Your task to perform on an android device: Open Chrome and go to settings Image 0: 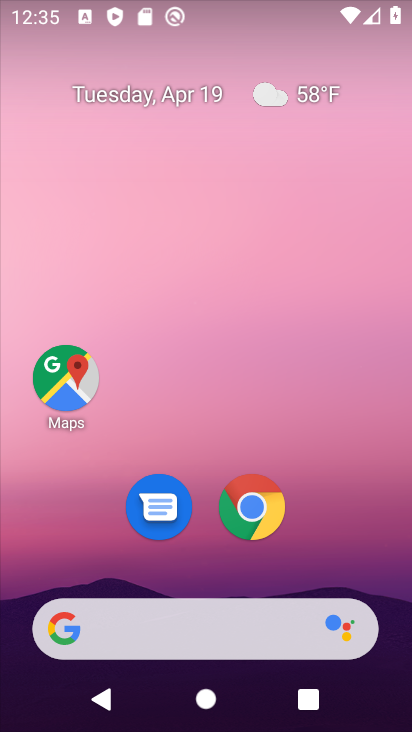
Step 0: click (257, 509)
Your task to perform on an android device: Open Chrome and go to settings Image 1: 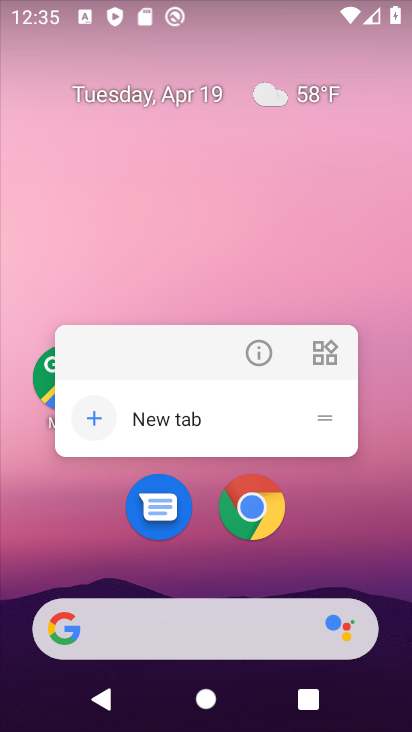
Step 1: click (247, 520)
Your task to perform on an android device: Open Chrome and go to settings Image 2: 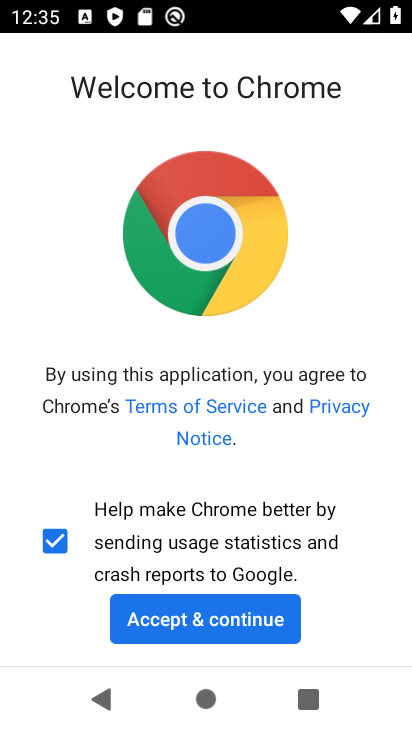
Step 2: click (183, 608)
Your task to perform on an android device: Open Chrome and go to settings Image 3: 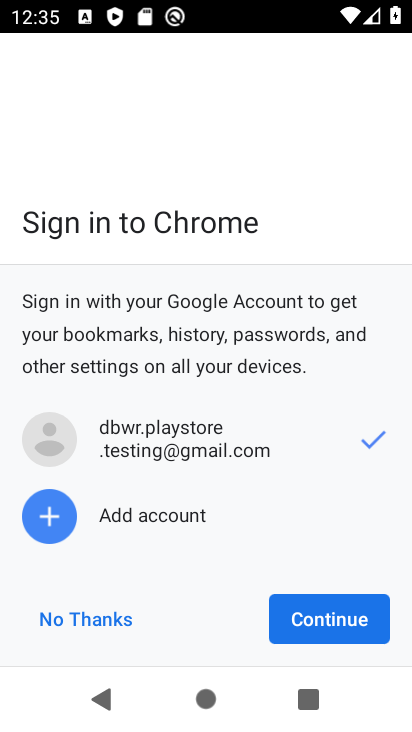
Step 3: click (332, 605)
Your task to perform on an android device: Open Chrome and go to settings Image 4: 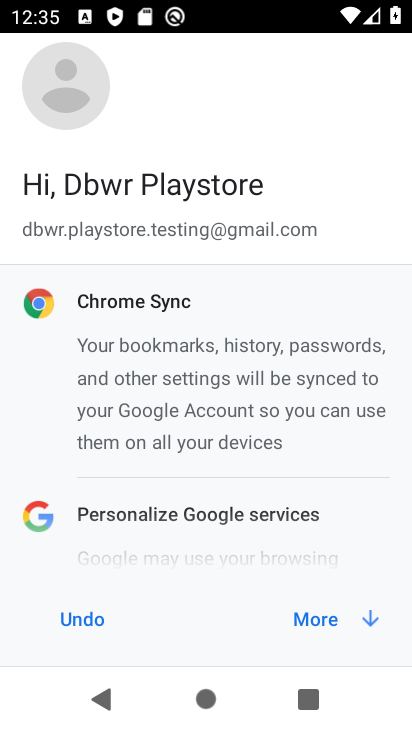
Step 4: click (317, 613)
Your task to perform on an android device: Open Chrome and go to settings Image 5: 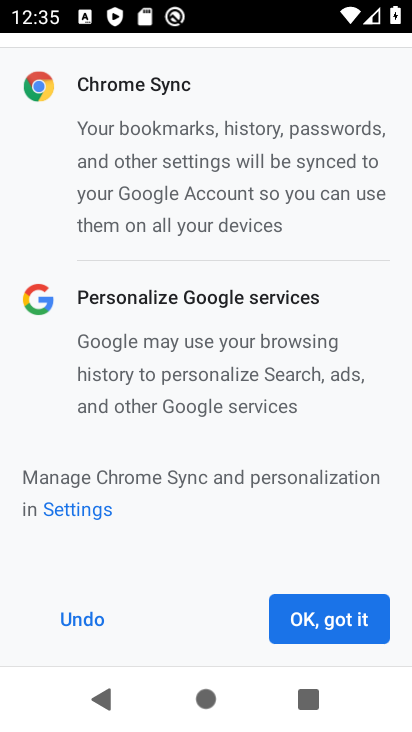
Step 5: click (316, 608)
Your task to perform on an android device: Open Chrome and go to settings Image 6: 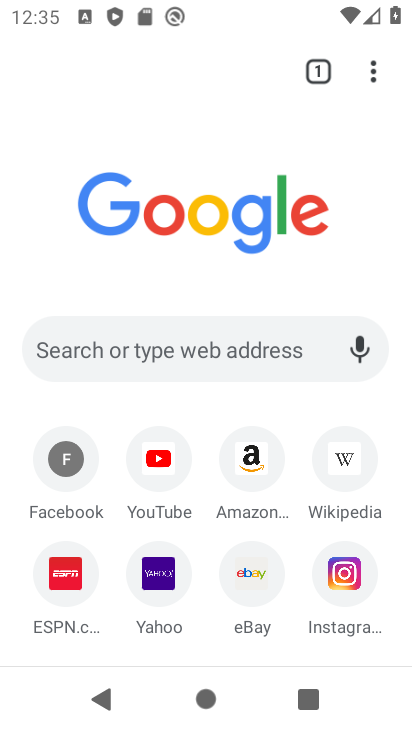
Step 6: click (371, 66)
Your task to perform on an android device: Open Chrome and go to settings Image 7: 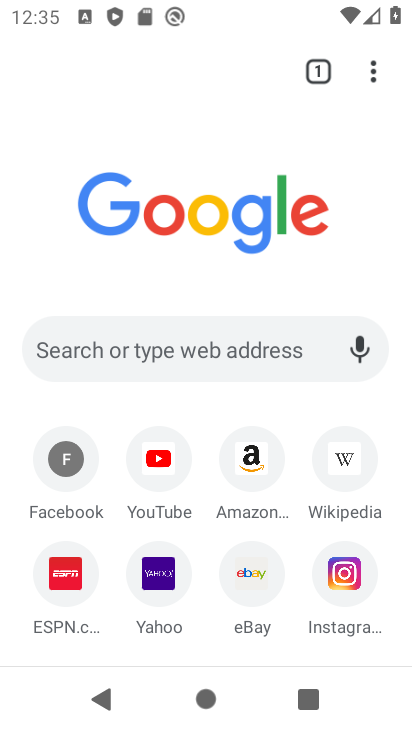
Step 7: click (370, 70)
Your task to perform on an android device: Open Chrome and go to settings Image 8: 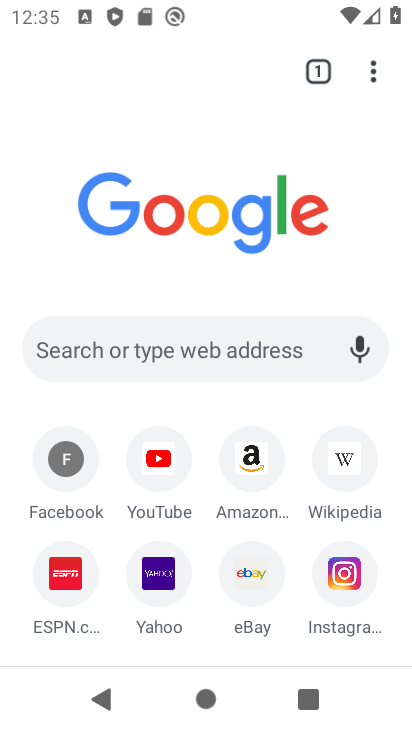
Step 8: click (370, 70)
Your task to perform on an android device: Open Chrome and go to settings Image 9: 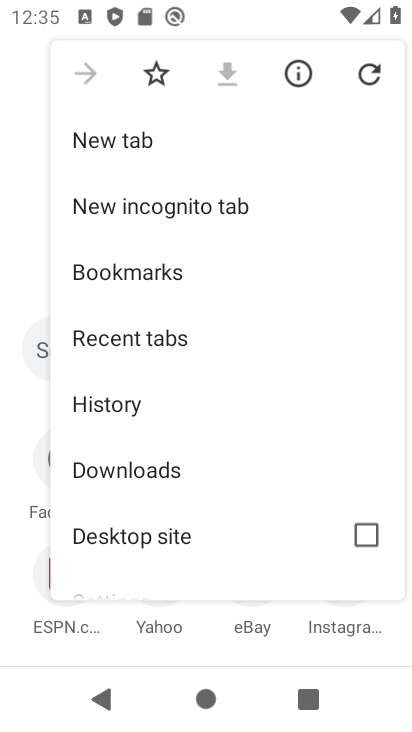
Step 9: drag from (192, 500) to (208, 206)
Your task to perform on an android device: Open Chrome and go to settings Image 10: 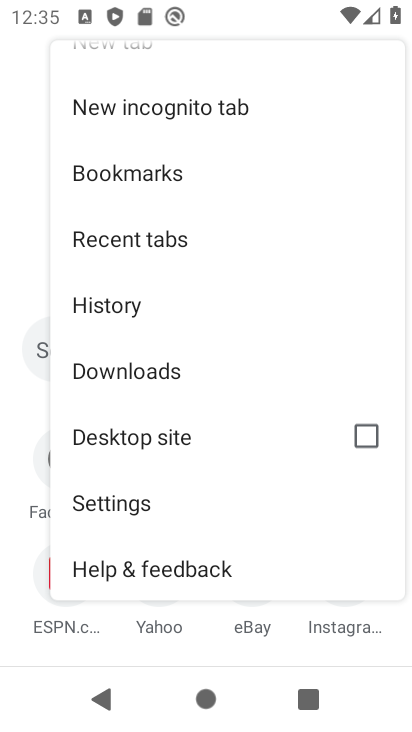
Step 10: click (163, 501)
Your task to perform on an android device: Open Chrome and go to settings Image 11: 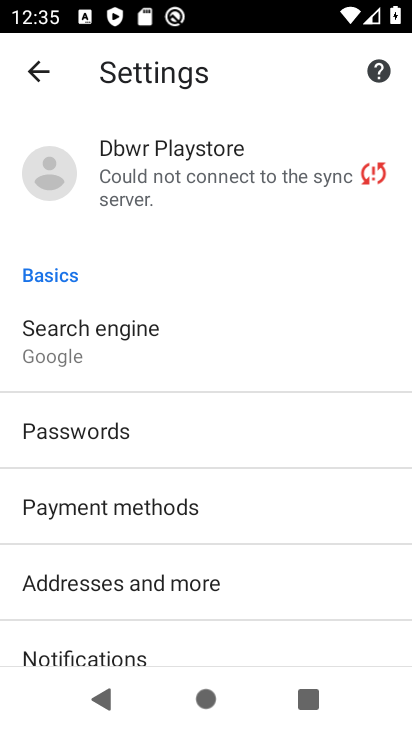
Step 11: task complete